Your task to perform on an android device: turn off picture-in-picture Image 0: 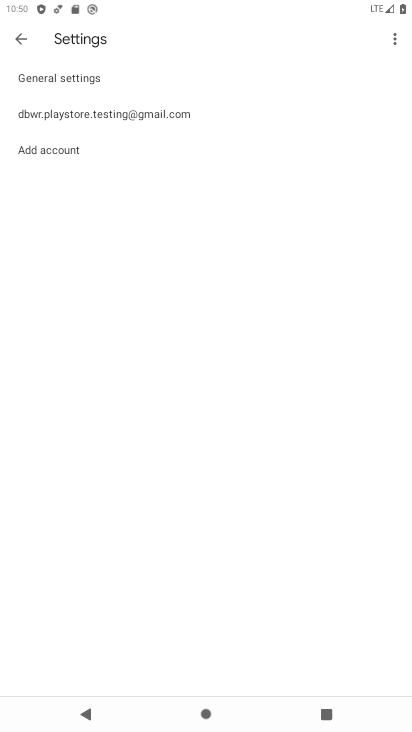
Step 0: press home button
Your task to perform on an android device: turn off picture-in-picture Image 1: 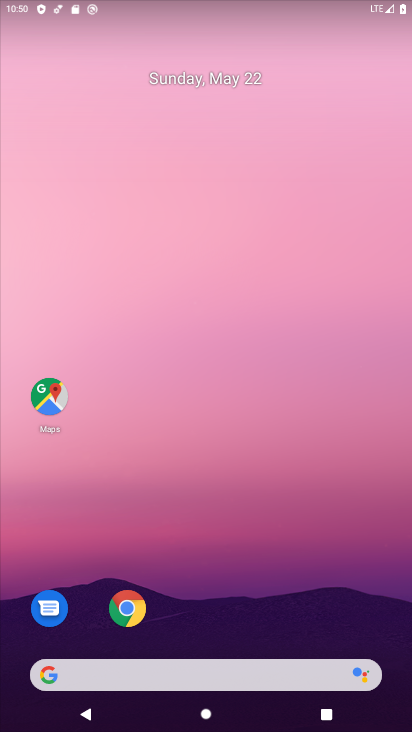
Step 1: drag from (224, 724) to (204, 134)
Your task to perform on an android device: turn off picture-in-picture Image 2: 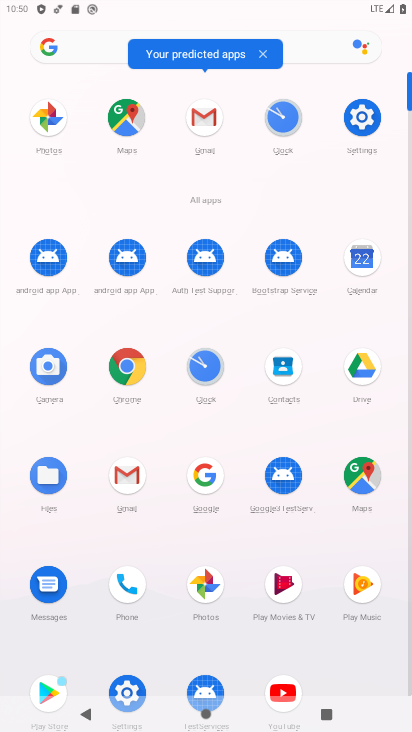
Step 2: click (127, 677)
Your task to perform on an android device: turn off picture-in-picture Image 3: 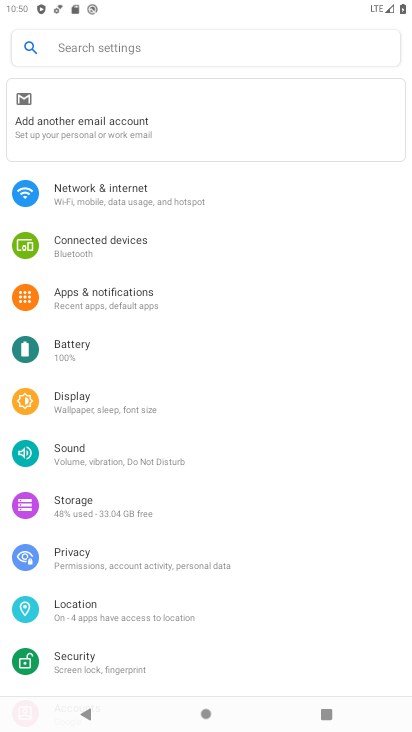
Step 3: click (110, 302)
Your task to perform on an android device: turn off picture-in-picture Image 4: 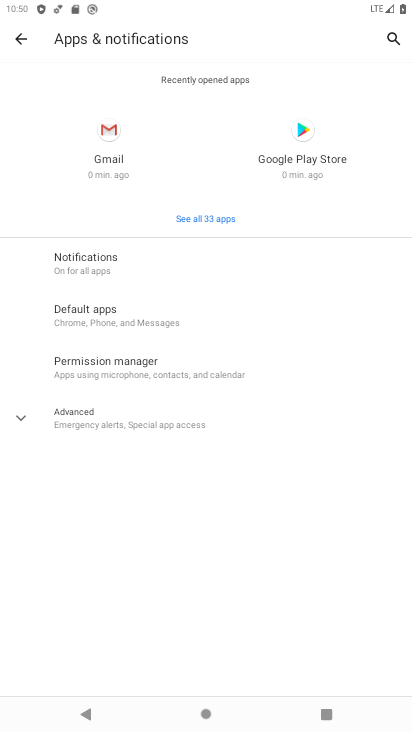
Step 4: click (68, 413)
Your task to perform on an android device: turn off picture-in-picture Image 5: 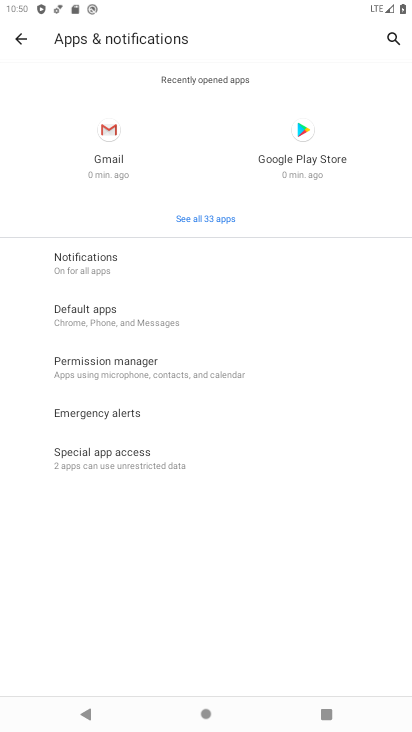
Step 5: click (116, 457)
Your task to perform on an android device: turn off picture-in-picture Image 6: 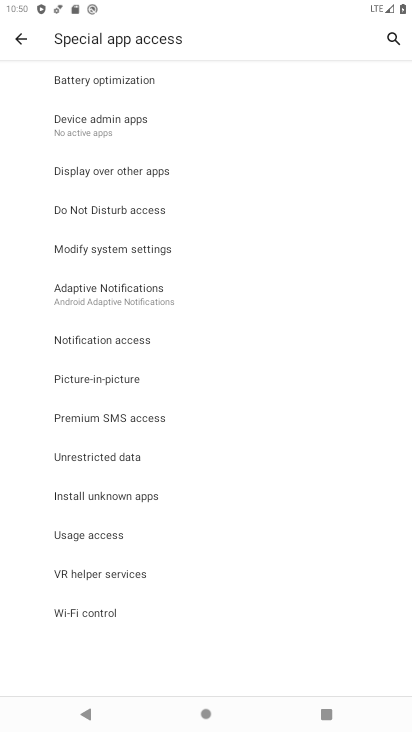
Step 6: click (112, 381)
Your task to perform on an android device: turn off picture-in-picture Image 7: 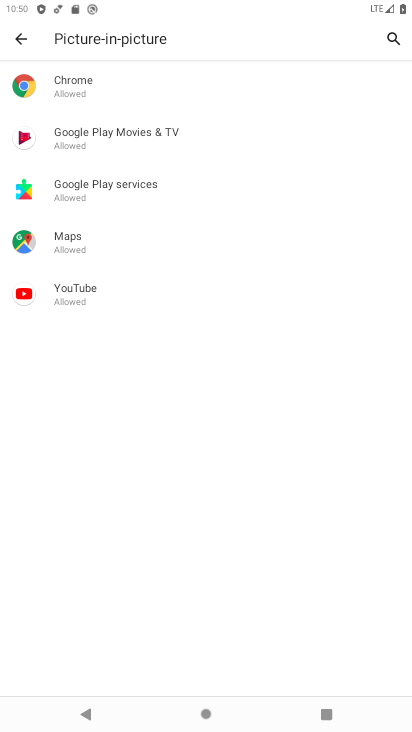
Step 7: click (93, 291)
Your task to perform on an android device: turn off picture-in-picture Image 8: 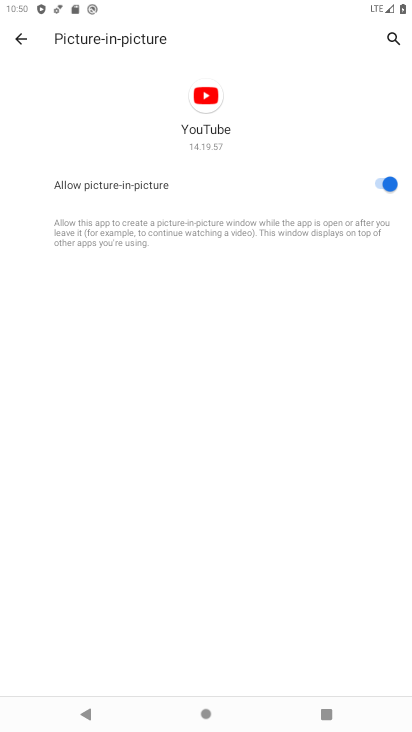
Step 8: click (381, 183)
Your task to perform on an android device: turn off picture-in-picture Image 9: 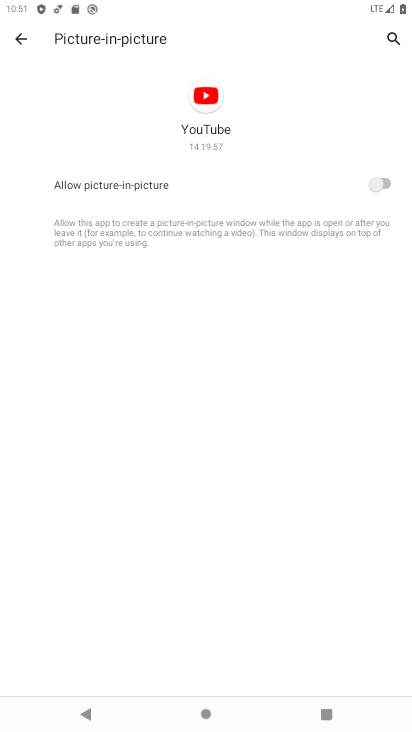
Step 9: task complete